Your task to perform on an android device: Clear the cart on costco. Add razer naga to the cart on costco Image 0: 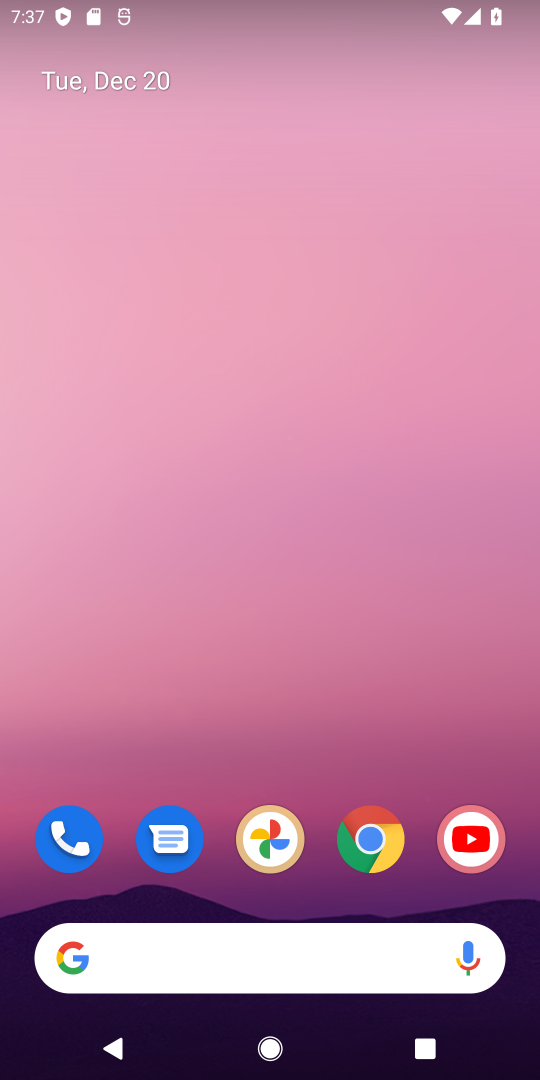
Step 0: drag from (262, 893) to (279, 7)
Your task to perform on an android device: Clear the cart on costco. Add razer naga to the cart on costco Image 1: 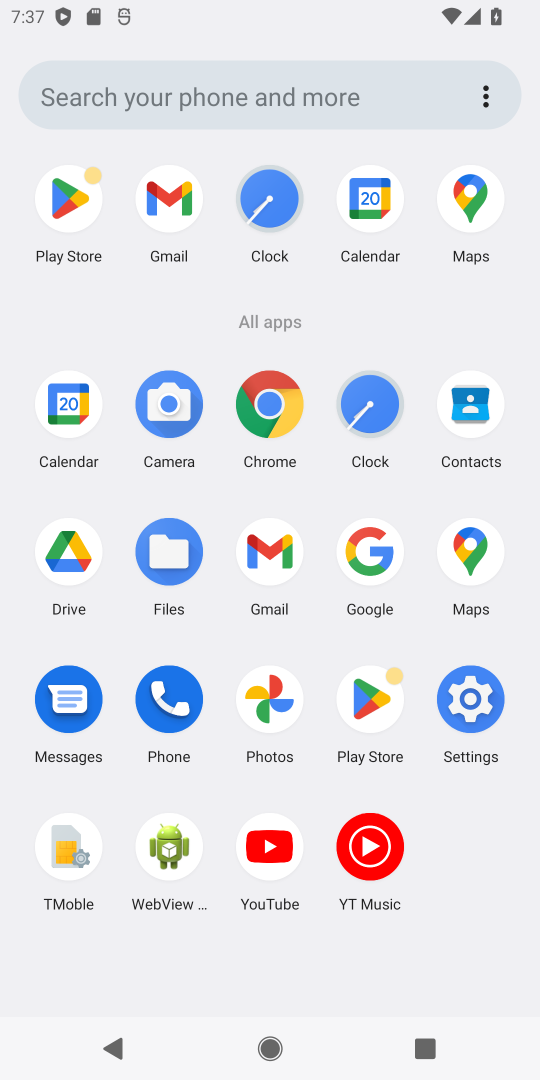
Step 1: click (377, 553)
Your task to perform on an android device: Clear the cart on costco. Add razer naga to the cart on costco Image 2: 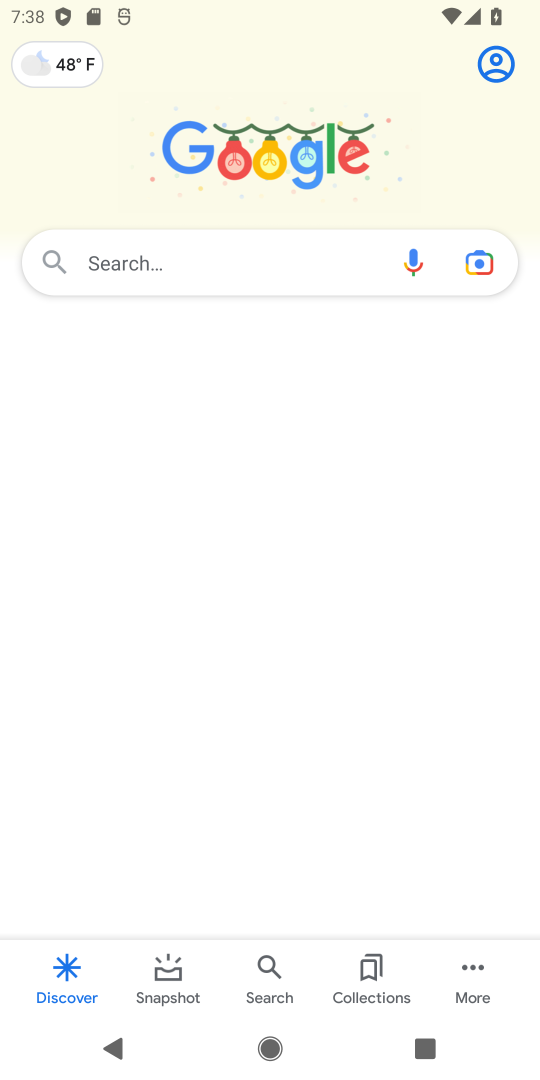
Step 2: click (176, 230)
Your task to perform on an android device: Clear the cart on costco. Add razer naga to the cart on costco Image 3: 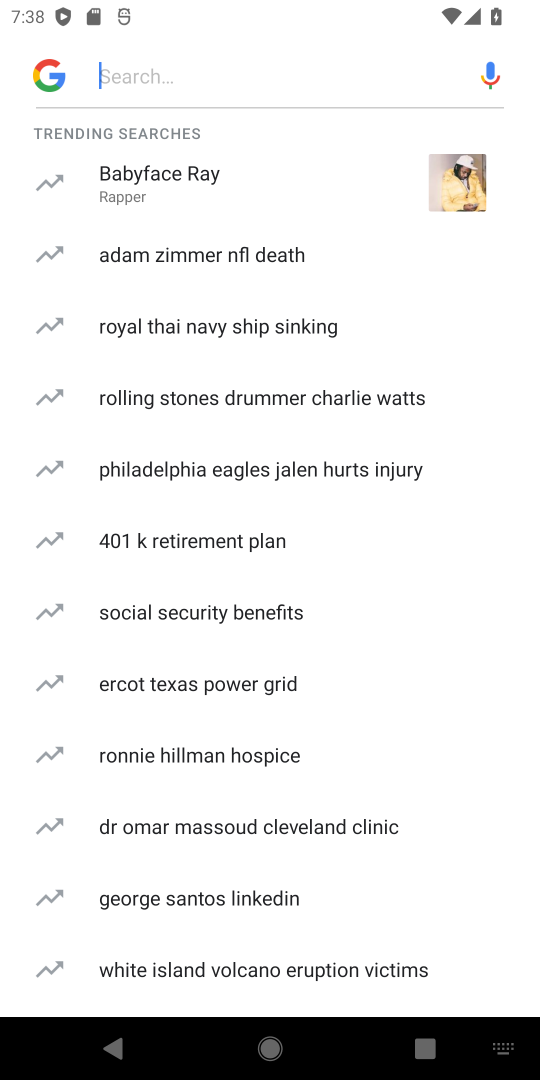
Step 3: type "costco"
Your task to perform on an android device: Clear the cart on costco. Add razer naga to the cart on costco Image 4: 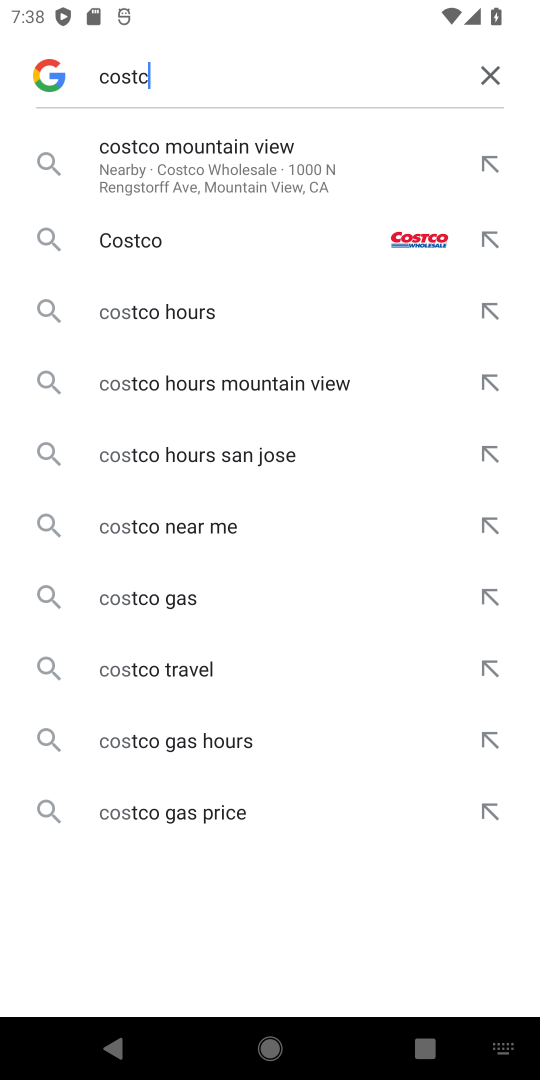
Step 4: type ""
Your task to perform on an android device: Clear the cart on costco. Add razer naga to the cart on costco Image 5: 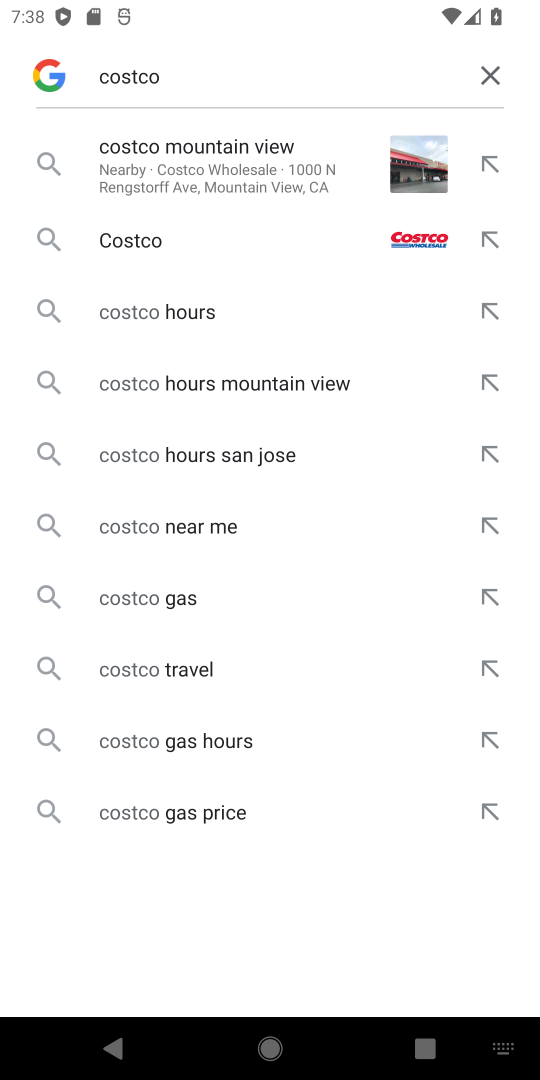
Step 5: click (305, 230)
Your task to perform on an android device: Clear the cart on costco. Add razer naga to the cart on costco Image 6: 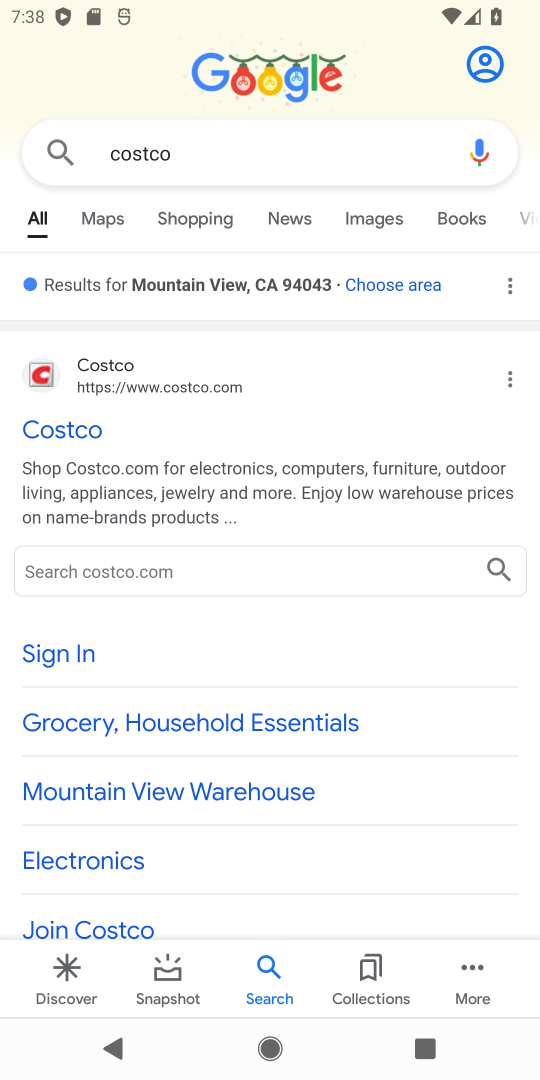
Step 6: click (70, 431)
Your task to perform on an android device: Clear the cart on costco. Add razer naga to the cart on costco Image 7: 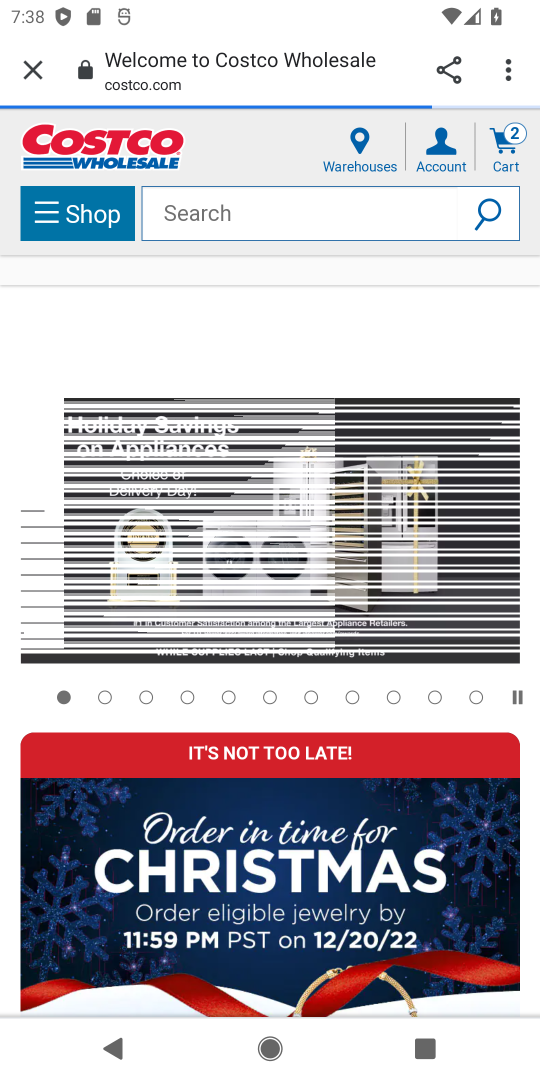
Step 7: click (506, 155)
Your task to perform on an android device: Clear the cart on costco. Add razer naga to the cart on costco Image 8: 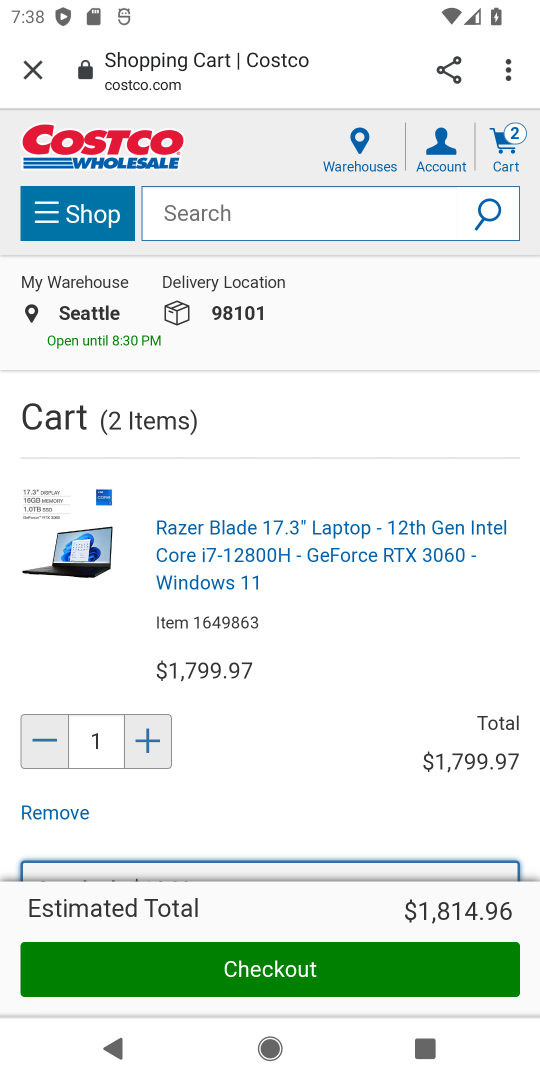
Step 8: click (70, 813)
Your task to perform on an android device: Clear the cart on costco. Add razer naga to the cart on costco Image 9: 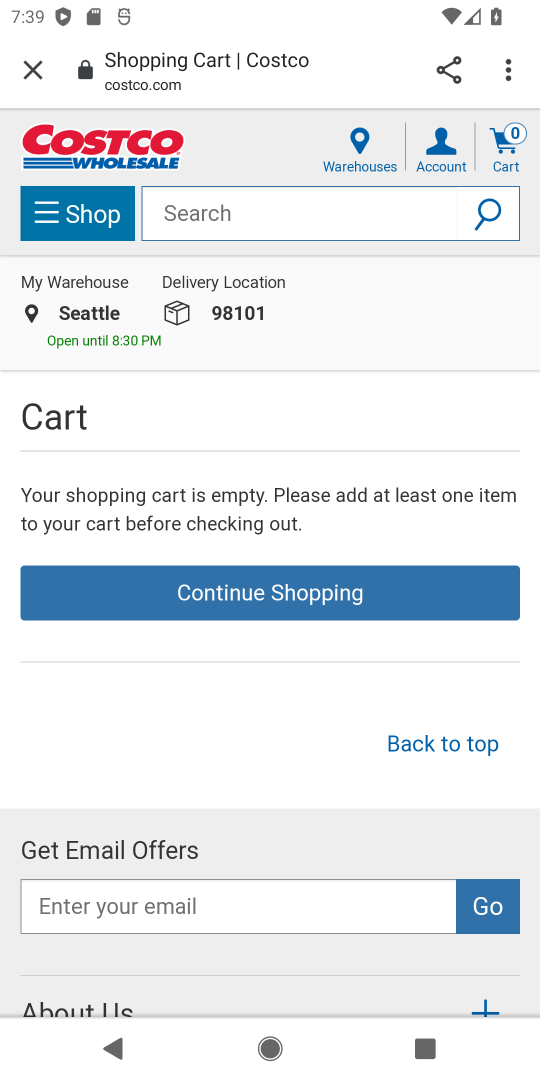
Step 9: click (311, 184)
Your task to perform on an android device: Clear the cart on costco. Add razer naga to the cart on costco Image 10: 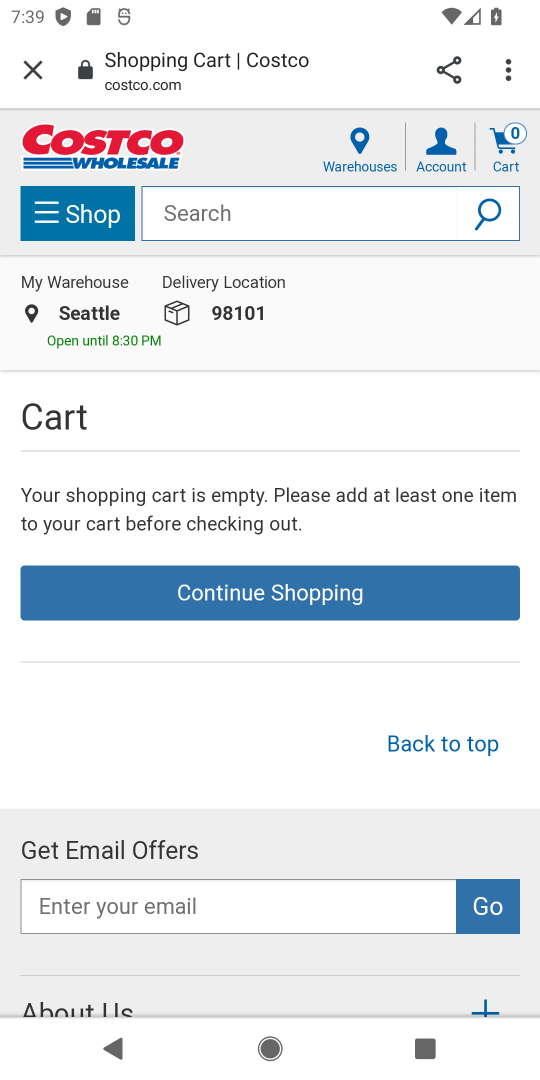
Step 10: click (306, 192)
Your task to perform on an android device: Clear the cart on costco. Add razer naga to the cart on costco Image 11: 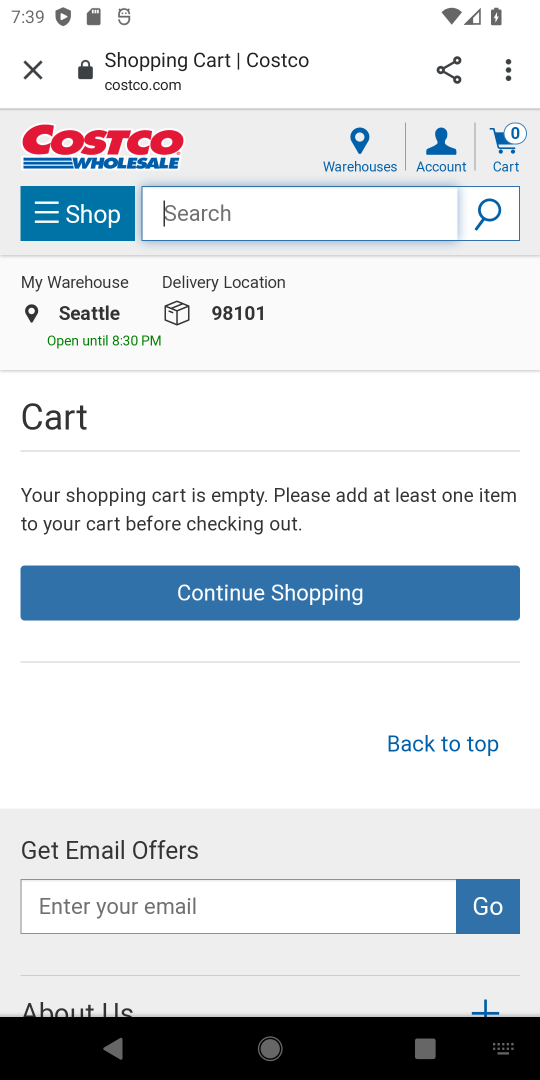
Step 11: type " razer naga"
Your task to perform on an android device: Clear the cart on costco. Add razer naga to the cart on costco Image 12: 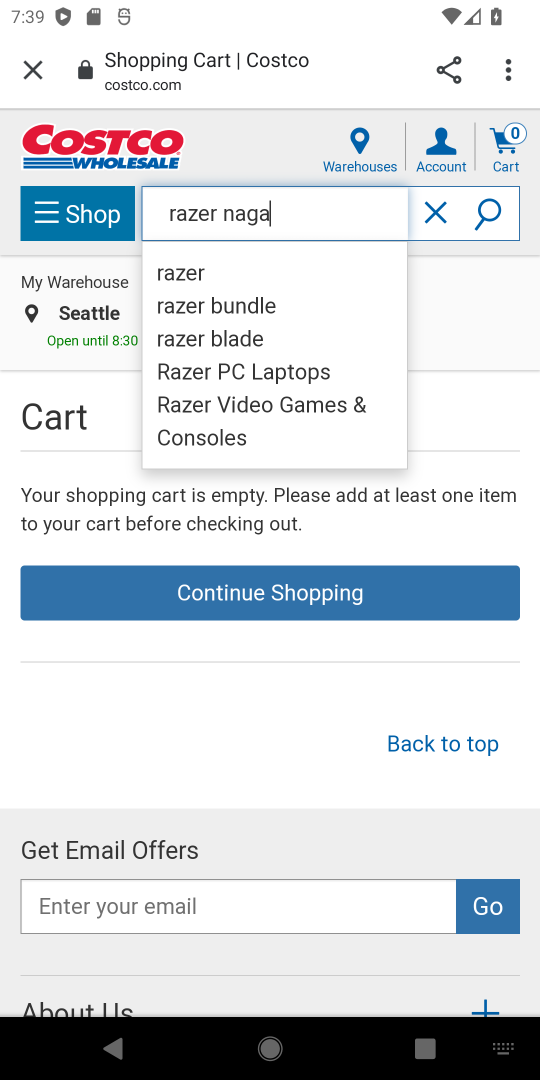
Step 12: click (483, 228)
Your task to perform on an android device: Clear the cart on costco. Add razer naga to the cart on costco Image 13: 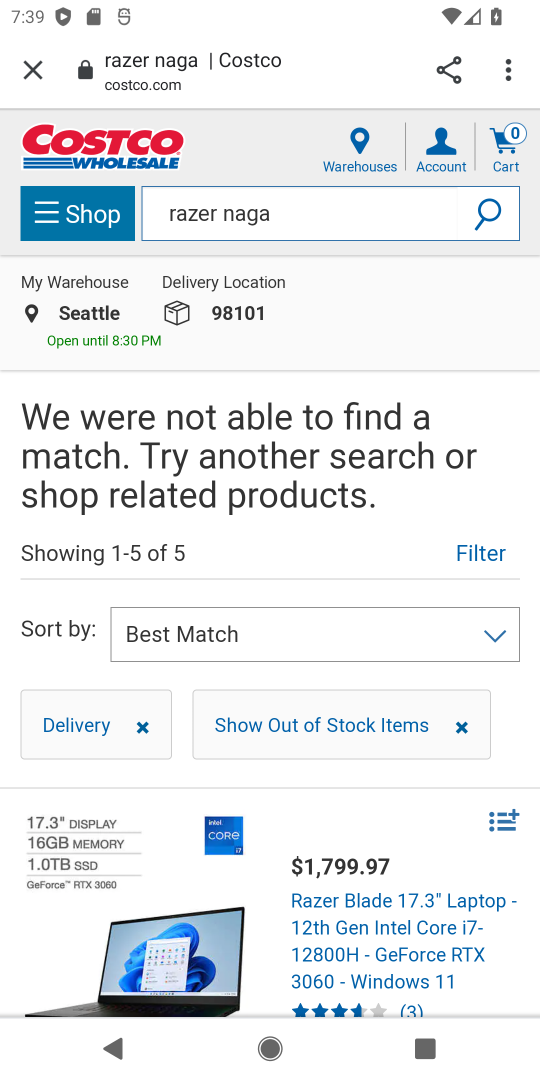
Step 13: task complete